Your task to perform on an android device: Open notification settings Image 0: 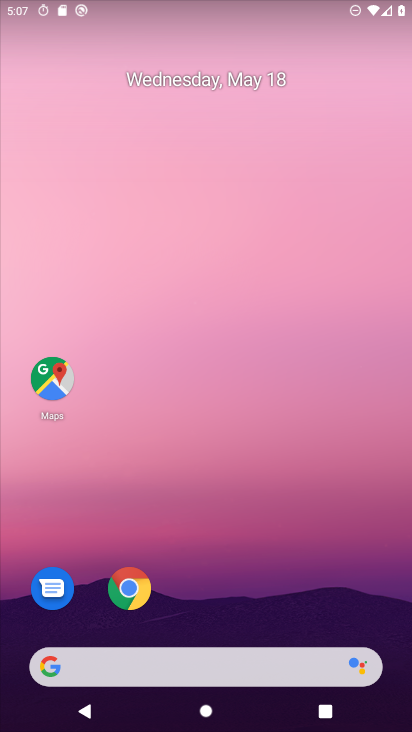
Step 0: drag from (212, 574) to (256, 311)
Your task to perform on an android device: Open notification settings Image 1: 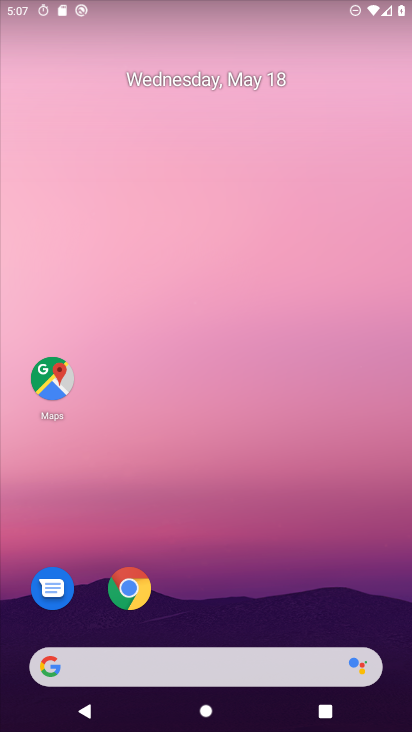
Step 1: drag from (239, 584) to (227, 147)
Your task to perform on an android device: Open notification settings Image 2: 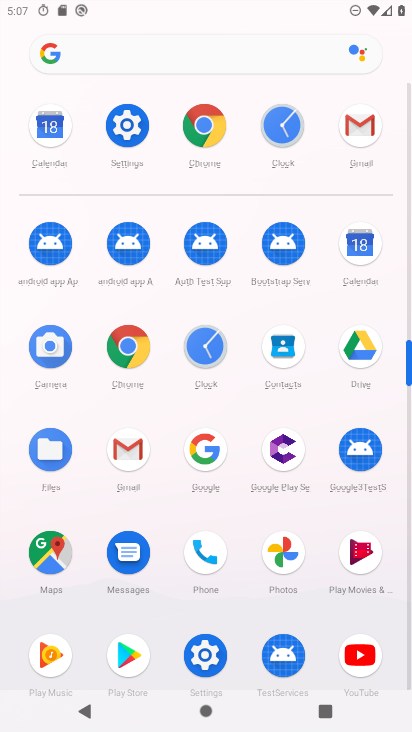
Step 2: drag from (255, 577) to (235, 76)
Your task to perform on an android device: Open notification settings Image 3: 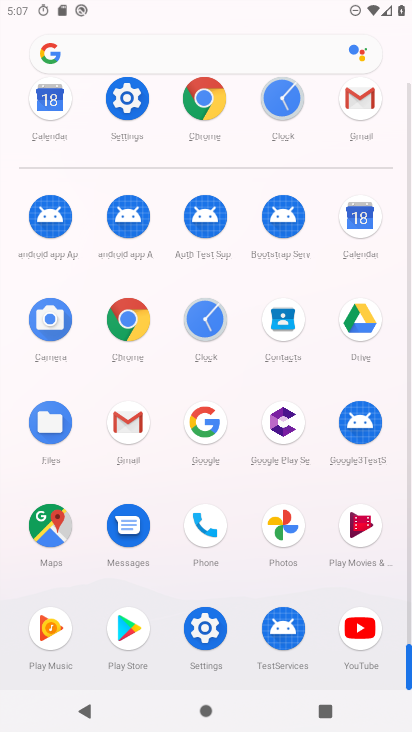
Step 3: click (116, 138)
Your task to perform on an android device: Open notification settings Image 4: 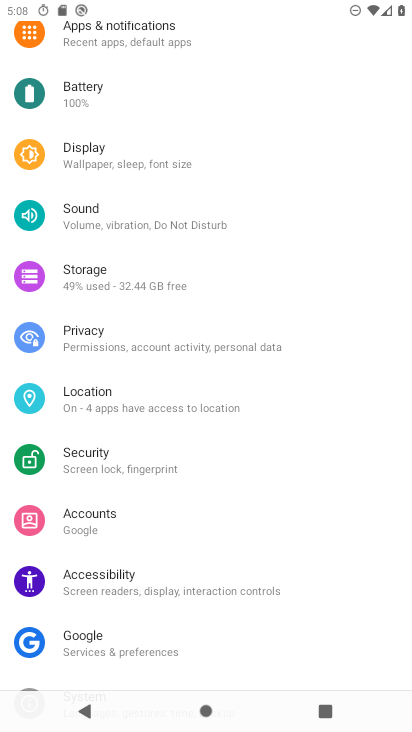
Step 4: click (107, 31)
Your task to perform on an android device: Open notification settings Image 5: 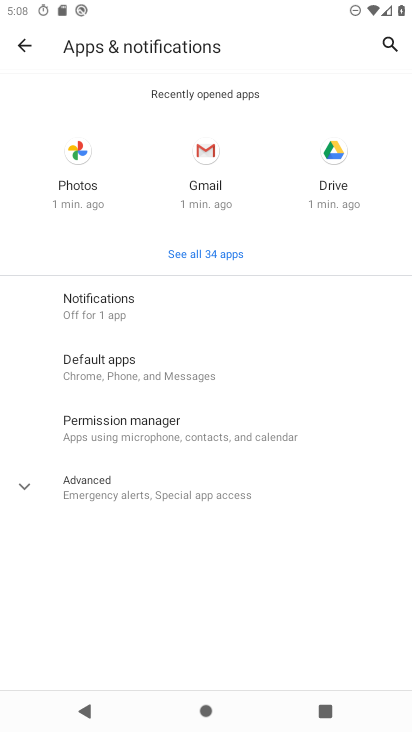
Step 5: click (96, 291)
Your task to perform on an android device: Open notification settings Image 6: 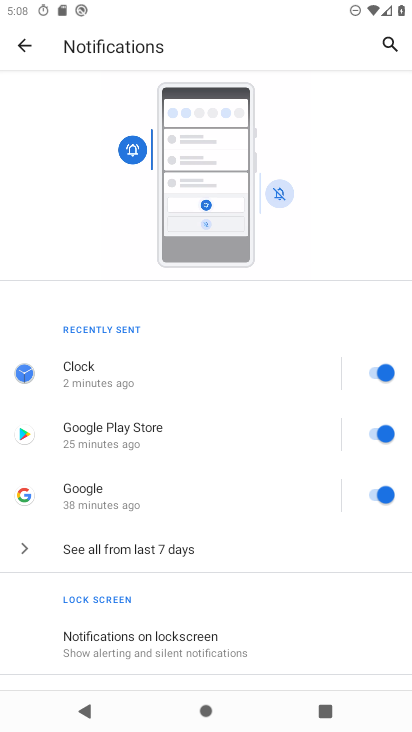
Step 6: task complete